Your task to perform on an android device: empty trash in the gmail app Image 0: 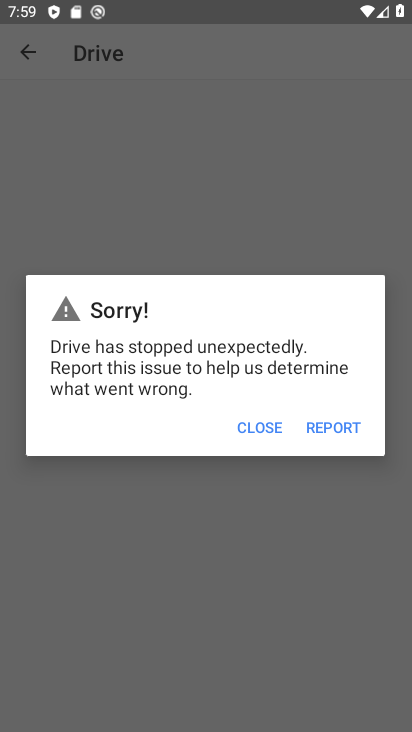
Step 0: press home button
Your task to perform on an android device: empty trash in the gmail app Image 1: 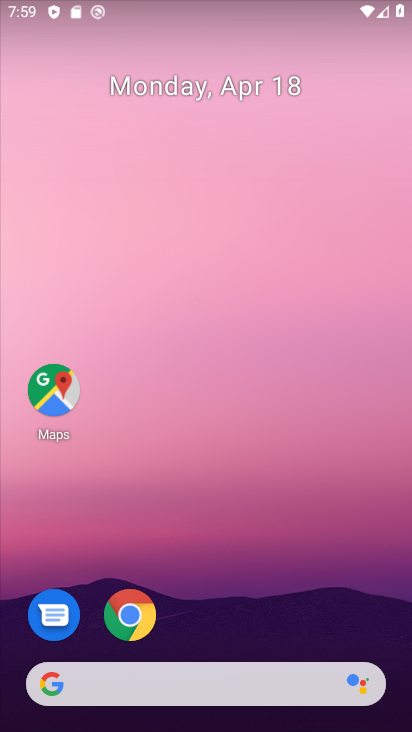
Step 1: drag from (252, 599) to (328, 107)
Your task to perform on an android device: empty trash in the gmail app Image 2: 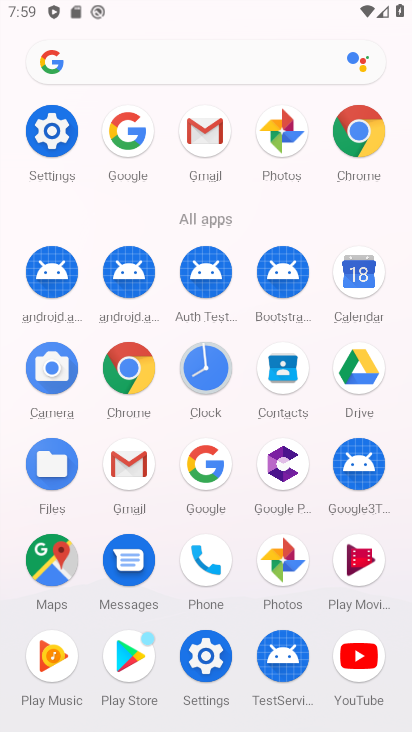
Step 2: click (203, 131)
Your task to perform on an android device: empty trash in the gmail app Image 3: 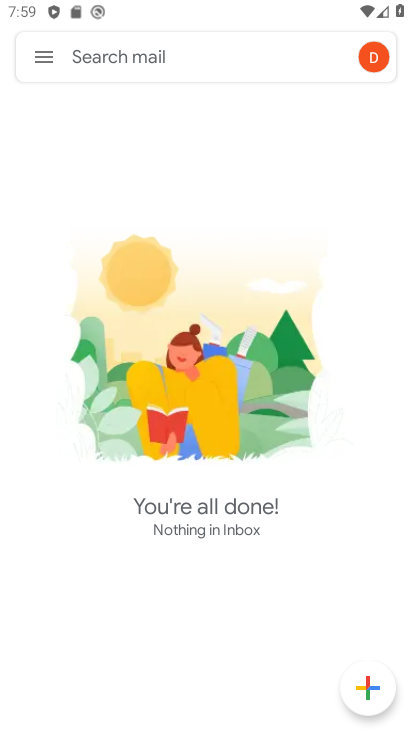
Step 3: click (40, 56)
Your task to perform on an android device: empty trash in the gmail app Image 4: 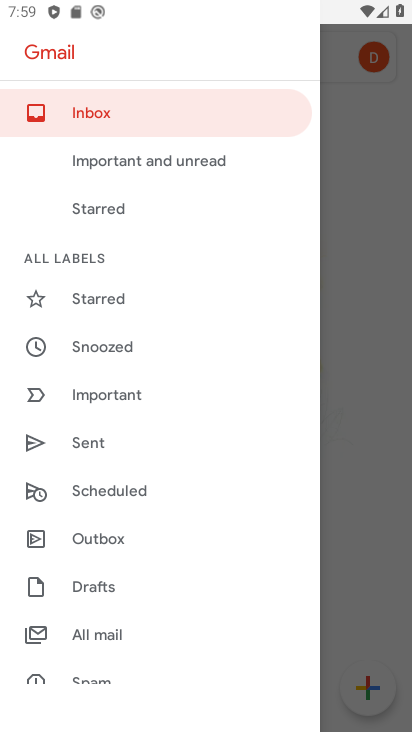
Step 4: click (193, 213)
Your task to perform on an android device: empty trash in the gmail app Image 5: 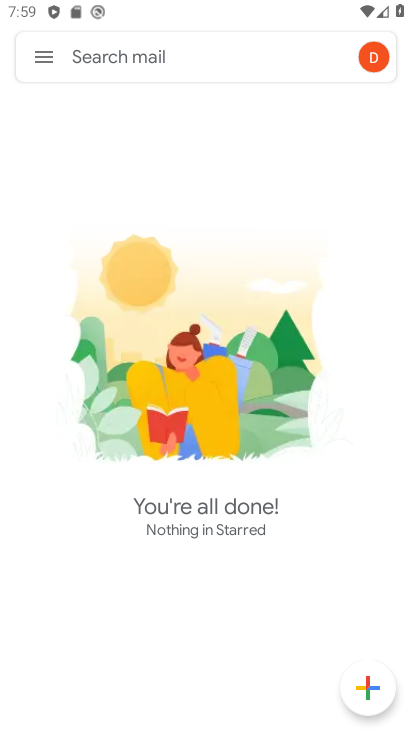
Step 5: click (41, 50)
Your task to perform on an android device: empty trash in the gmail app Image 6: 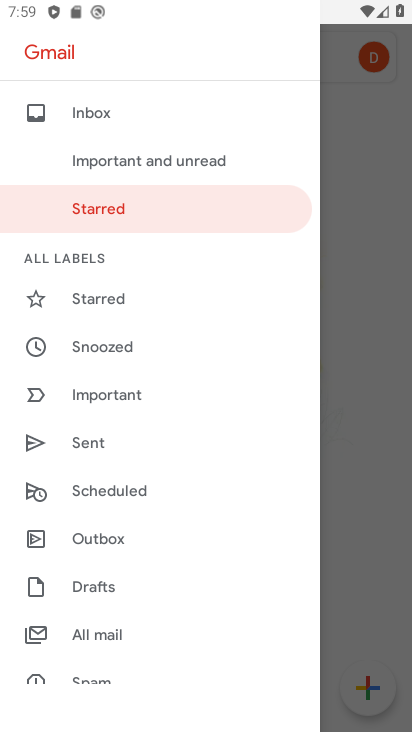
Step 6: drag from (151, 586) to (200, 206)
Your task to perform on an android device: empty trash in the gmail app Image 7: 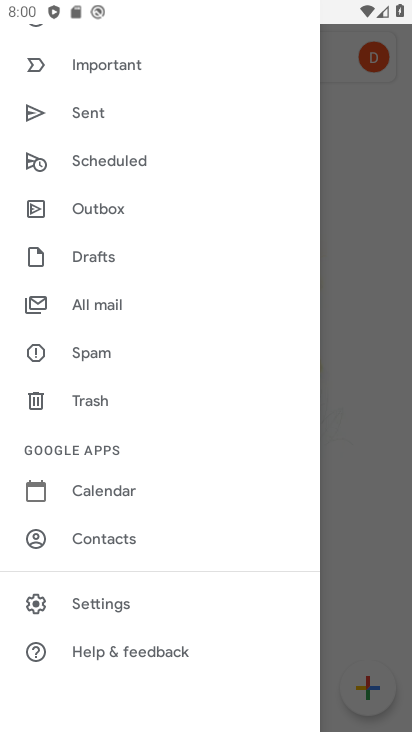
Step 7: click (109, 404)
Your task to perform on an android device: empty trash in the gmail app Image 8: 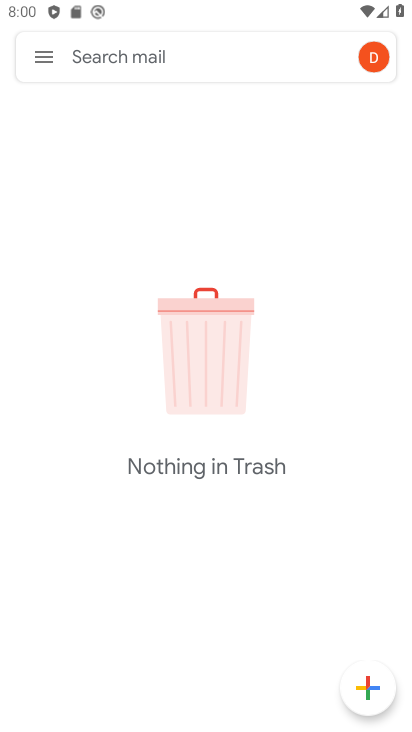
Step 8: task complete